Your task to perform on an android device: Is it going to rain today? Image 0: 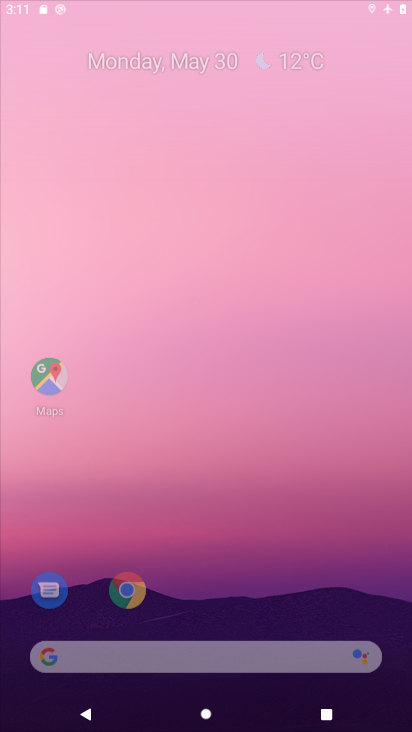
Step 0: press home button
Your task to perform on an android device: Is it going to rain today? Image 1: 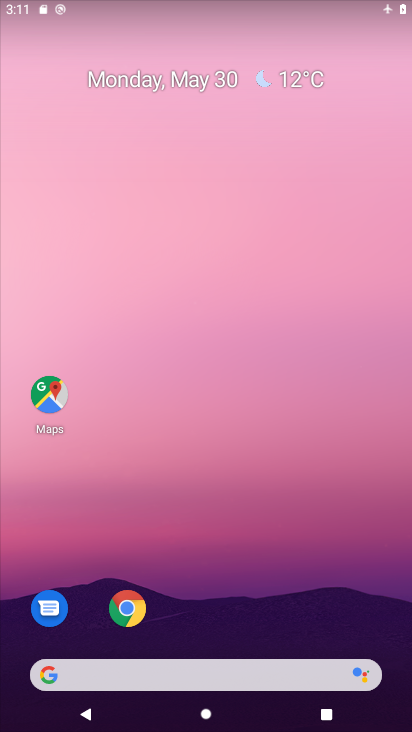
Step 1: click (303, 75)
Your task to perform on an android device: Is it going to rain today? Image 2: 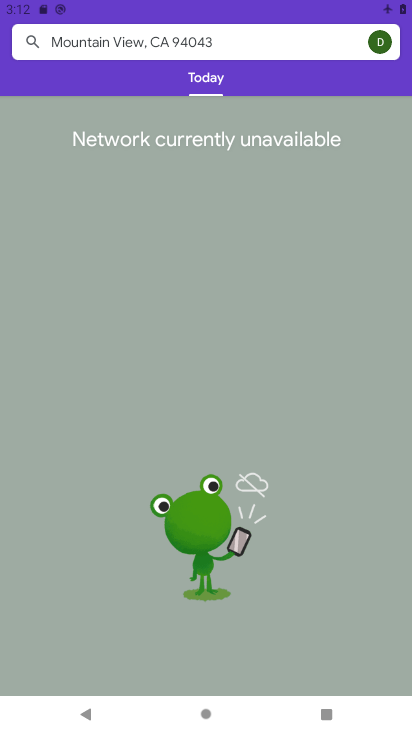
Step 2: task complete